Your task to perform on an android device: install app "Speedtest by Ookla" Image 0: 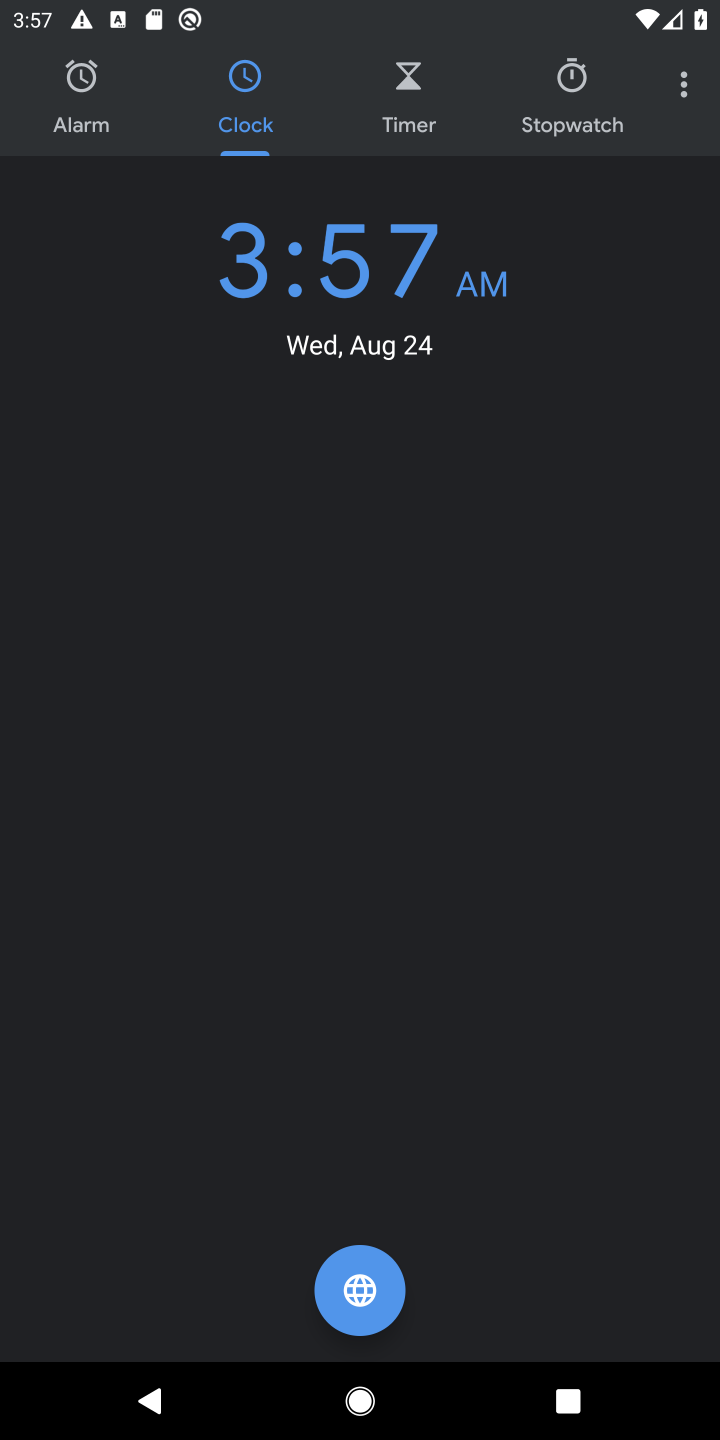
Step 0: press home button
Your task to perform on an android device: install app "Speedtest by Ookla" Image 1: 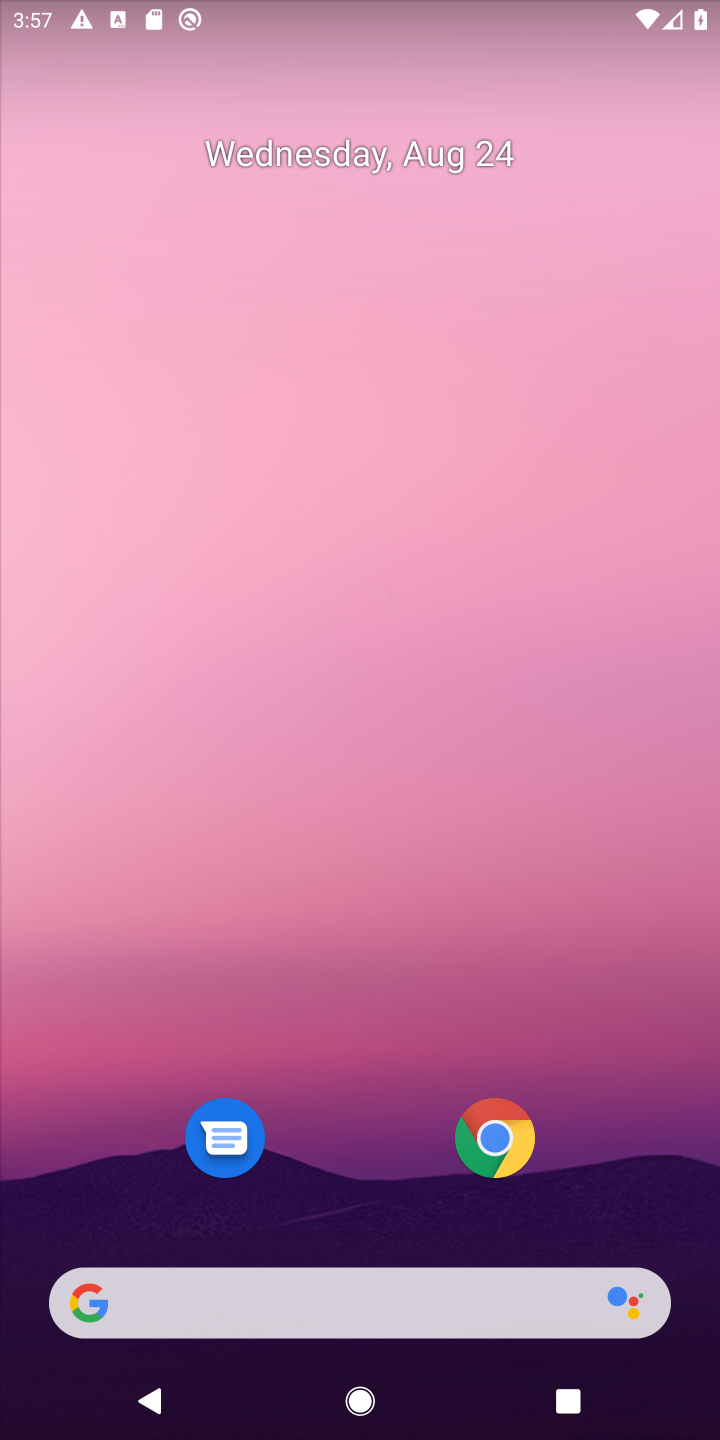
Step 1: drag from (359, 1252) to (349, 226)
Your task to perform on an android device: install app "Speedtest by Ookla" Image 2: 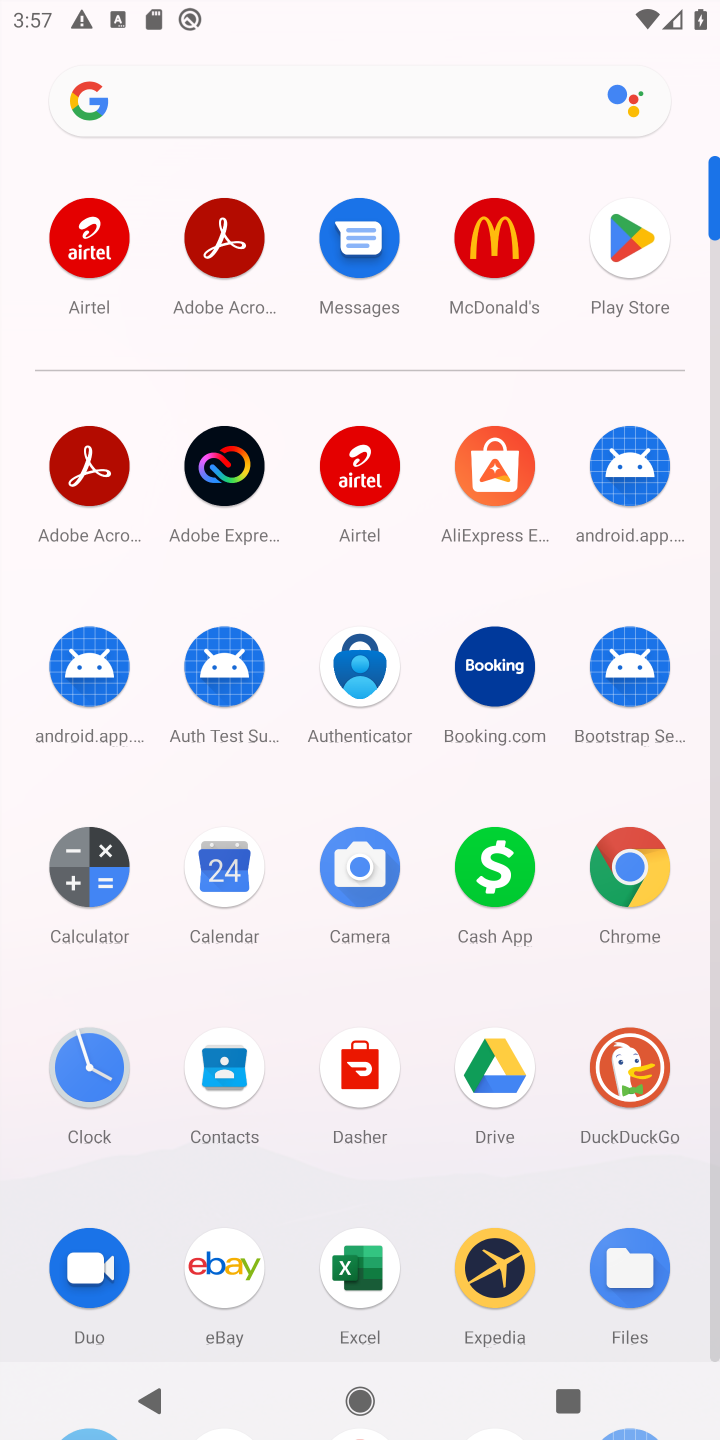
Step 2: drag from (410, 1004) to (410, 522)
Your task to perform on an android device: install app "Speedtest by Ookla" Image 3: 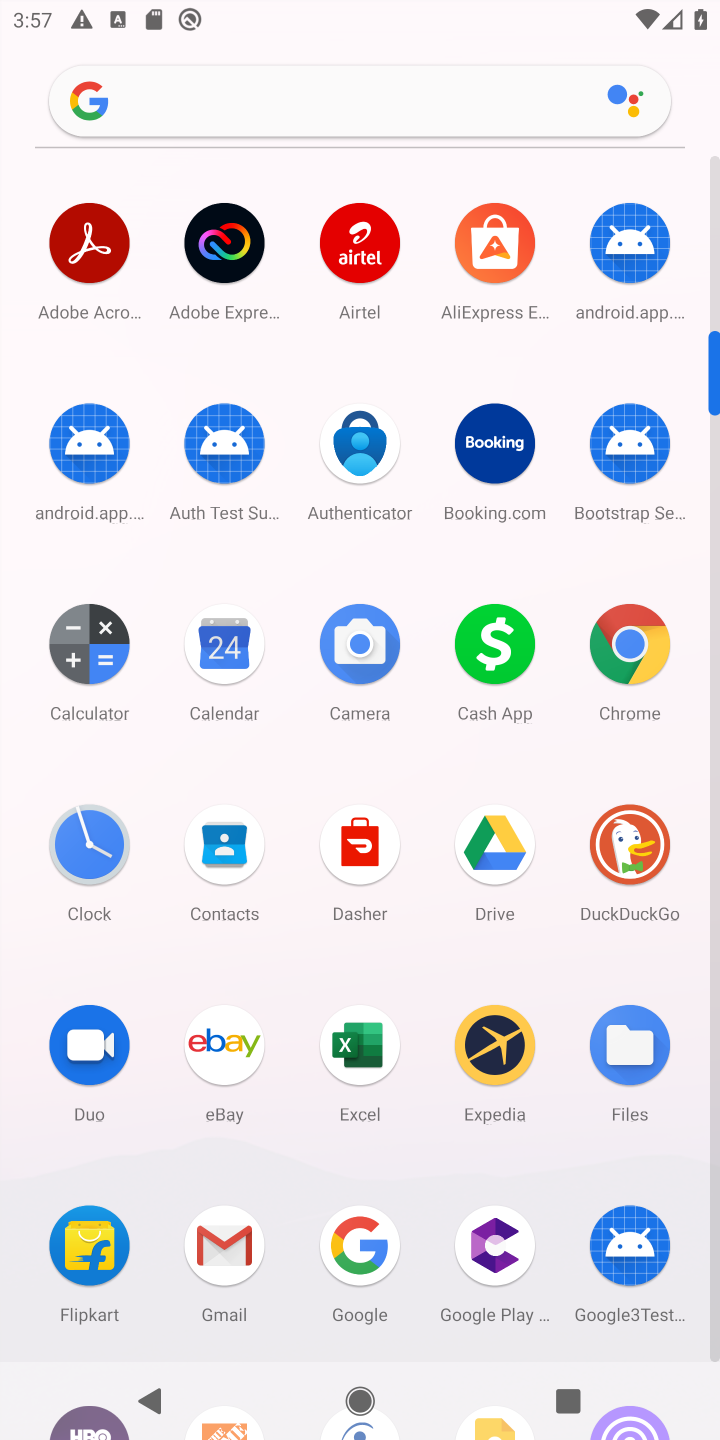
Step 3: drag from (434, 1152) to (460, 238)
Your task to perform on an android device: install app "Speedtest by Ookla" Image 4: 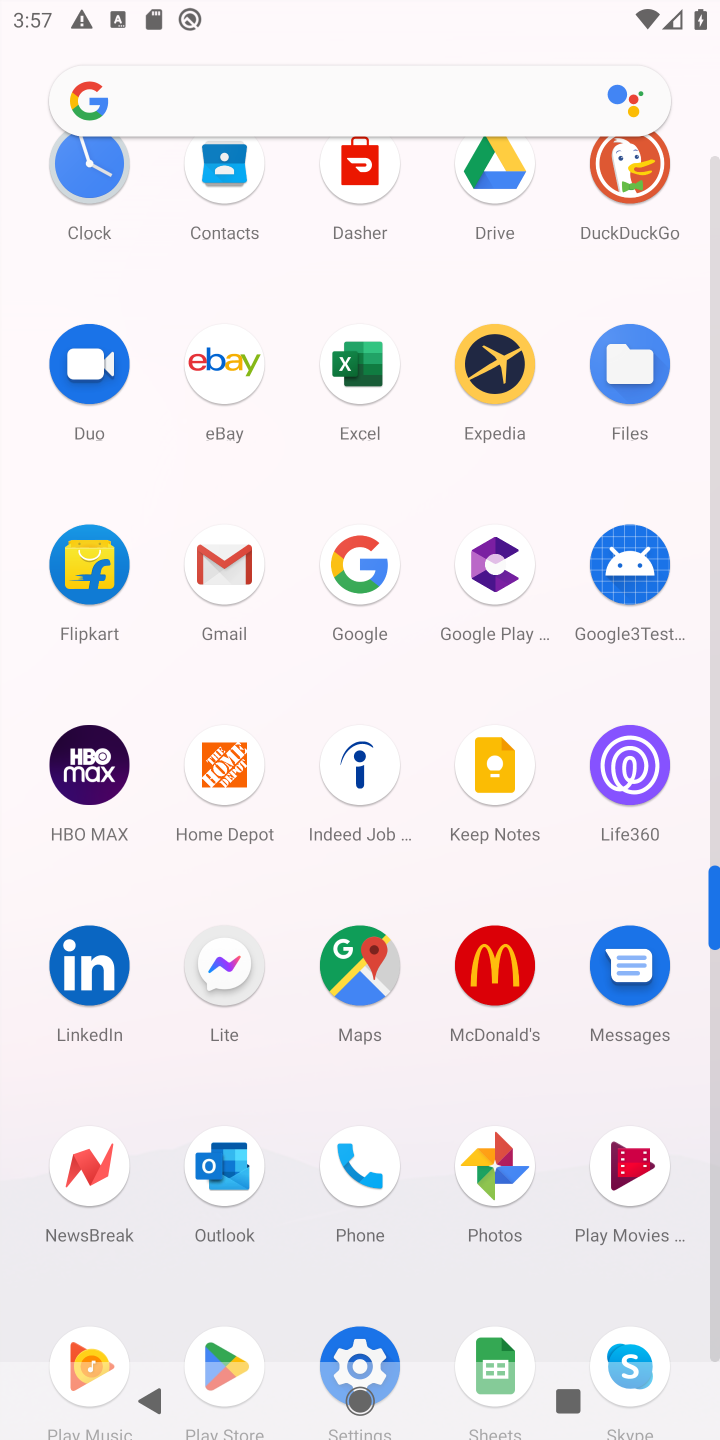
Step 4: drag from (295, 1227) to (363, 361)
Your task to perform on an android device: install app "Speedtest by Ookla" Image 5: 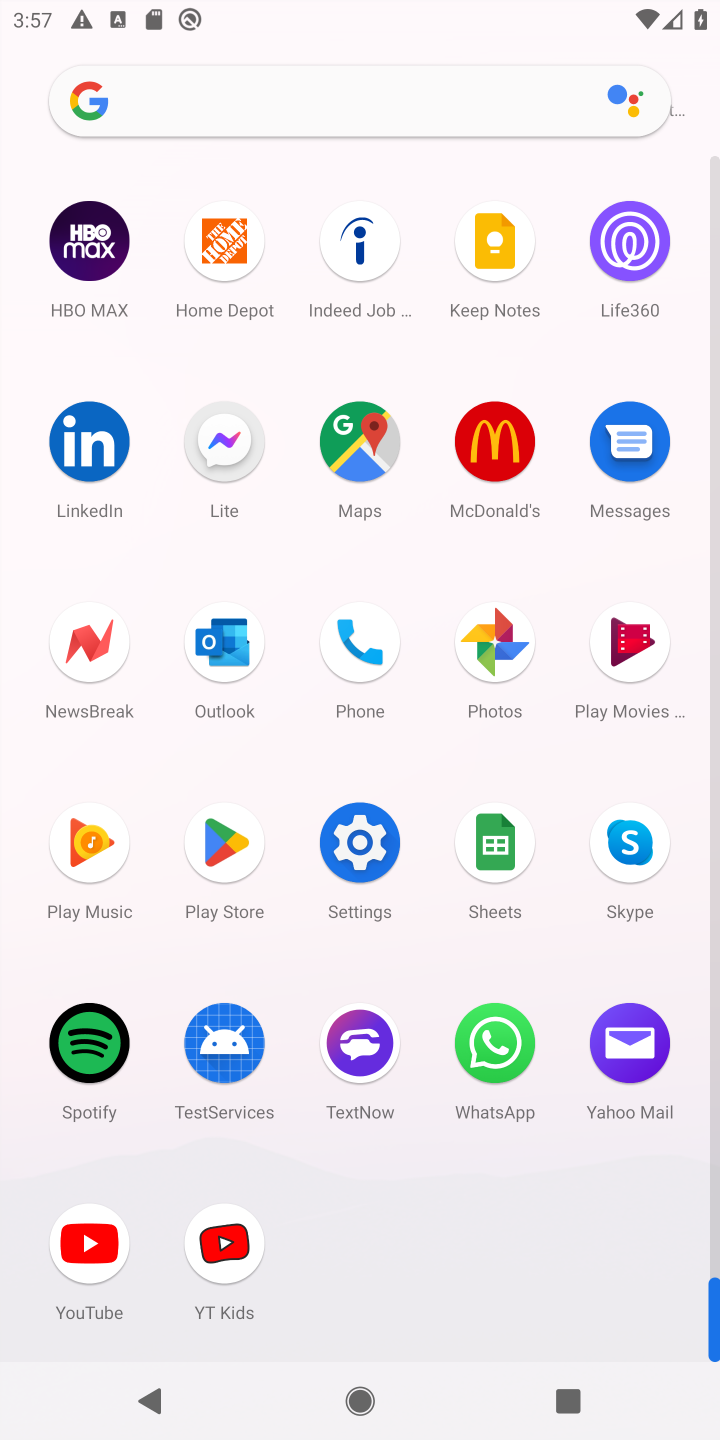
Step 5: click (225, 840)
Your task to perform on an android device: install app "Speedtest by Ookla" Image 6: 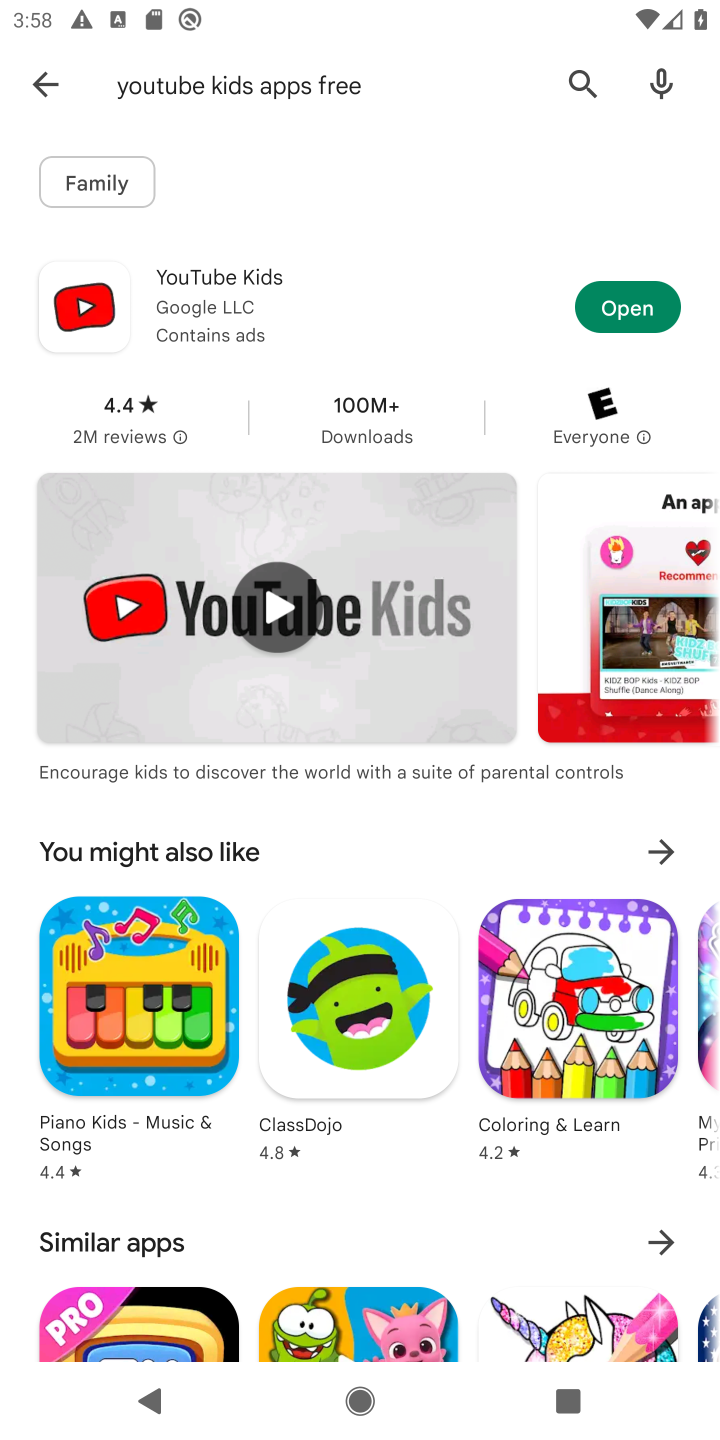
Step 6: click (578, 84)
Your task to perform on an android device: install app "Speedtest by Ookla" Image 7: 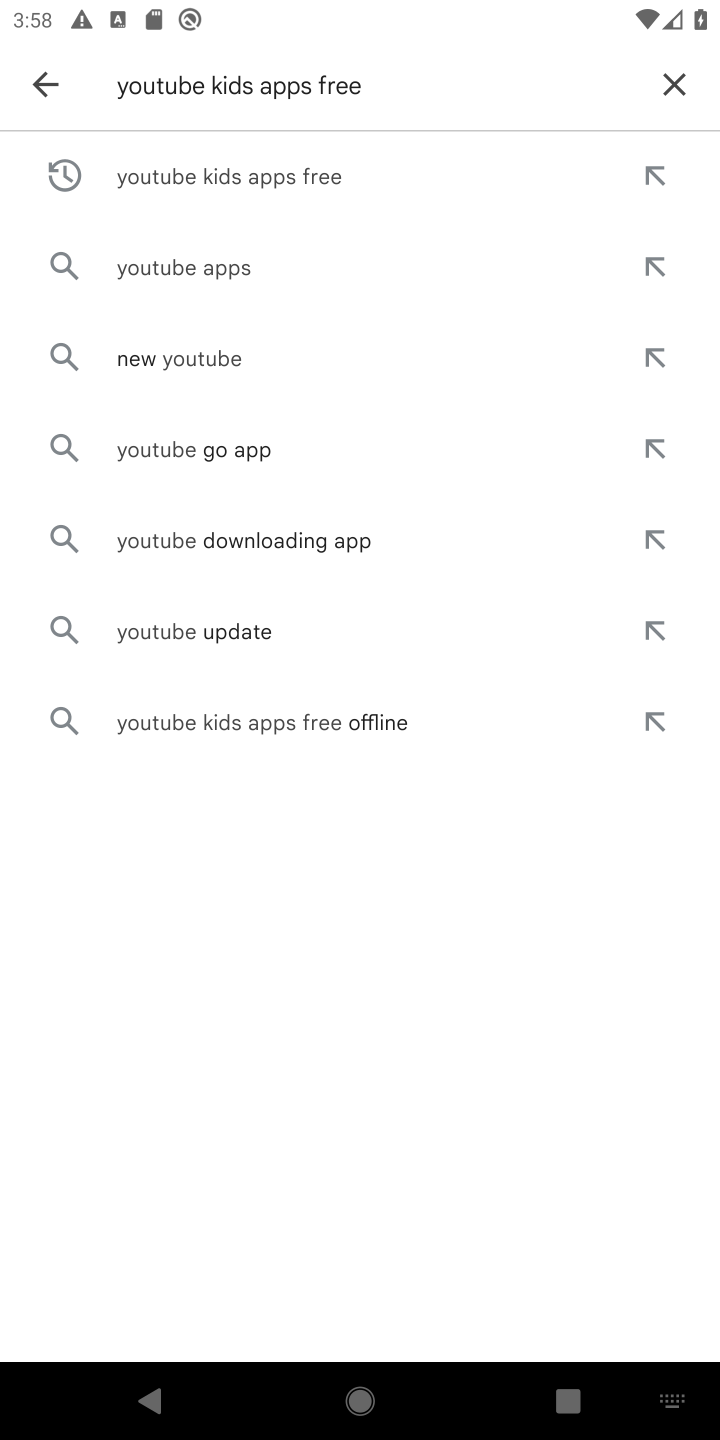
Step 7: click (681, 84)
Your task to perform on an android device: install app "Speedtest by Ookla" Image 8: 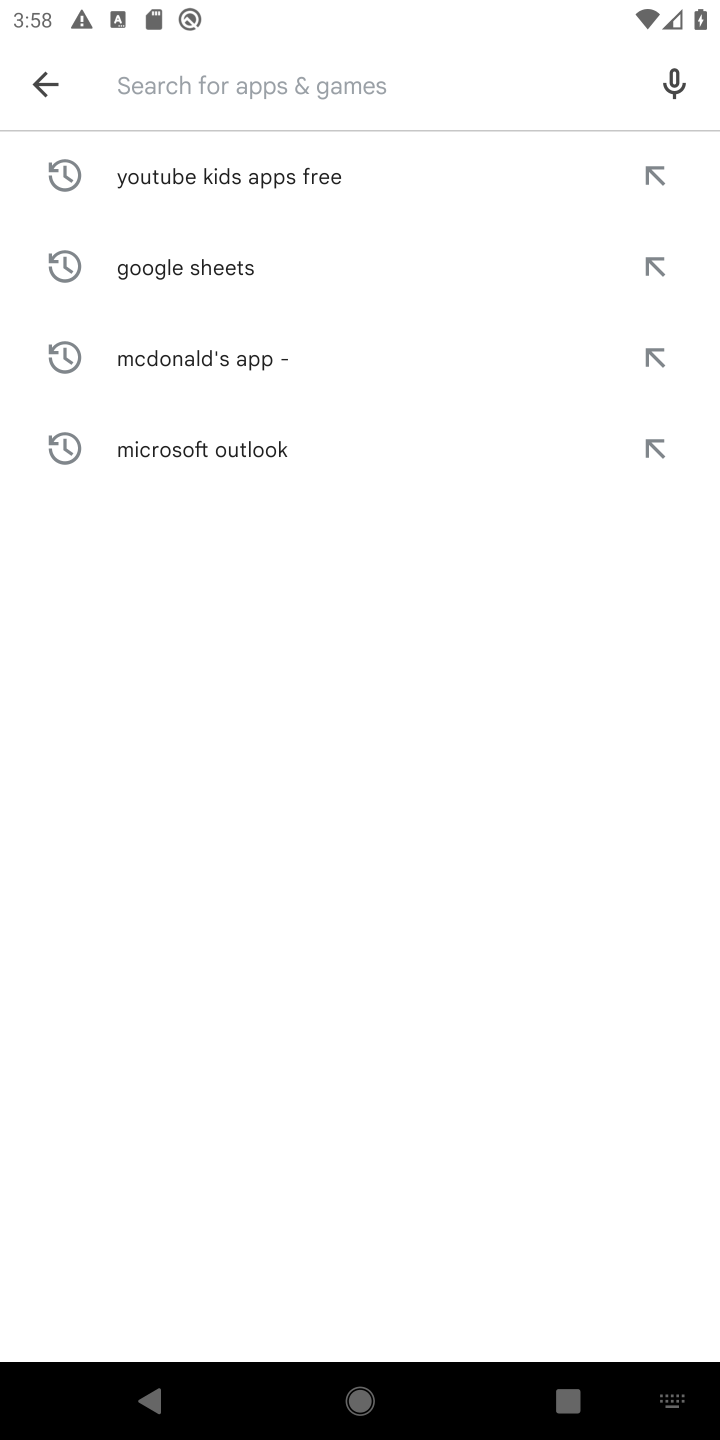
Step 8: type "Speedtest by Ookla"
Your task to perform on an android device: install app "Speedtest by Ookla" Image 9: 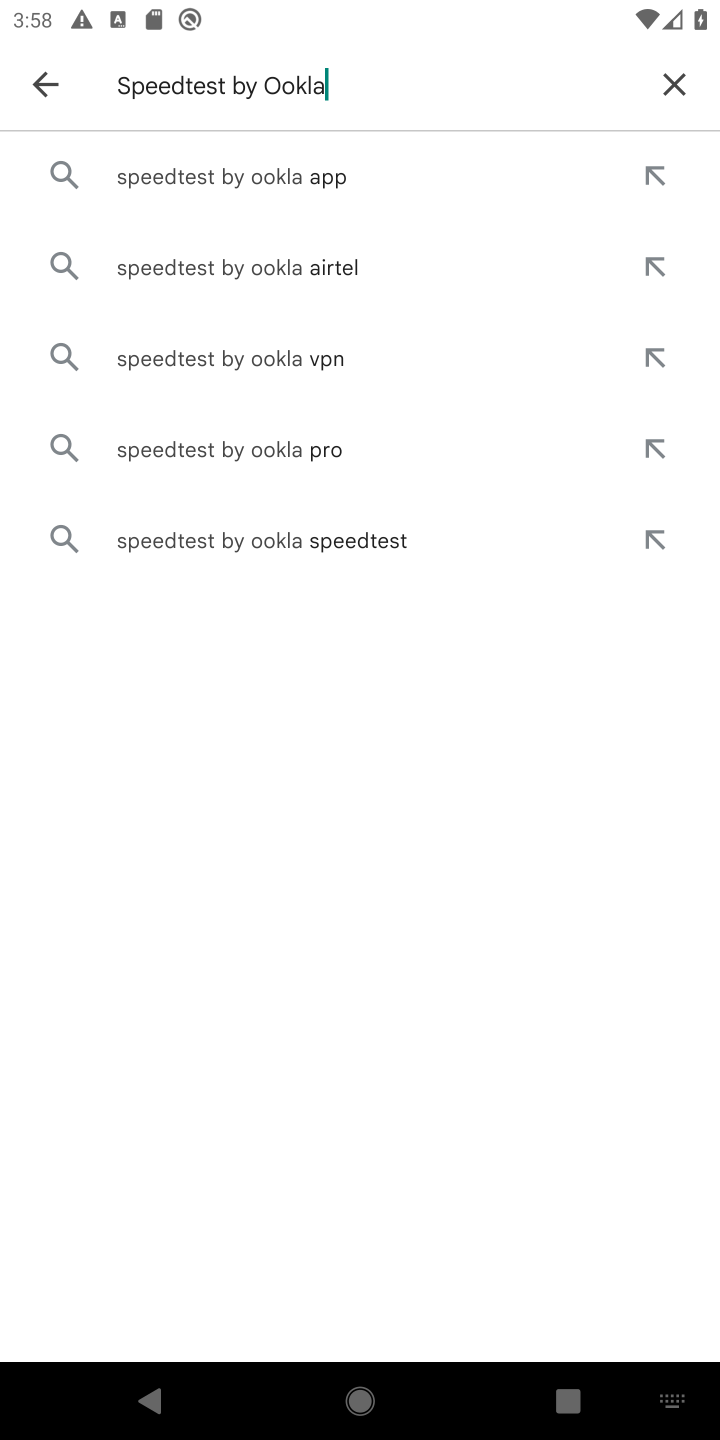
Step 9: click (279, 171)
Your task to perform on an android device: install app "Speedtest by Ookla" Image 10: 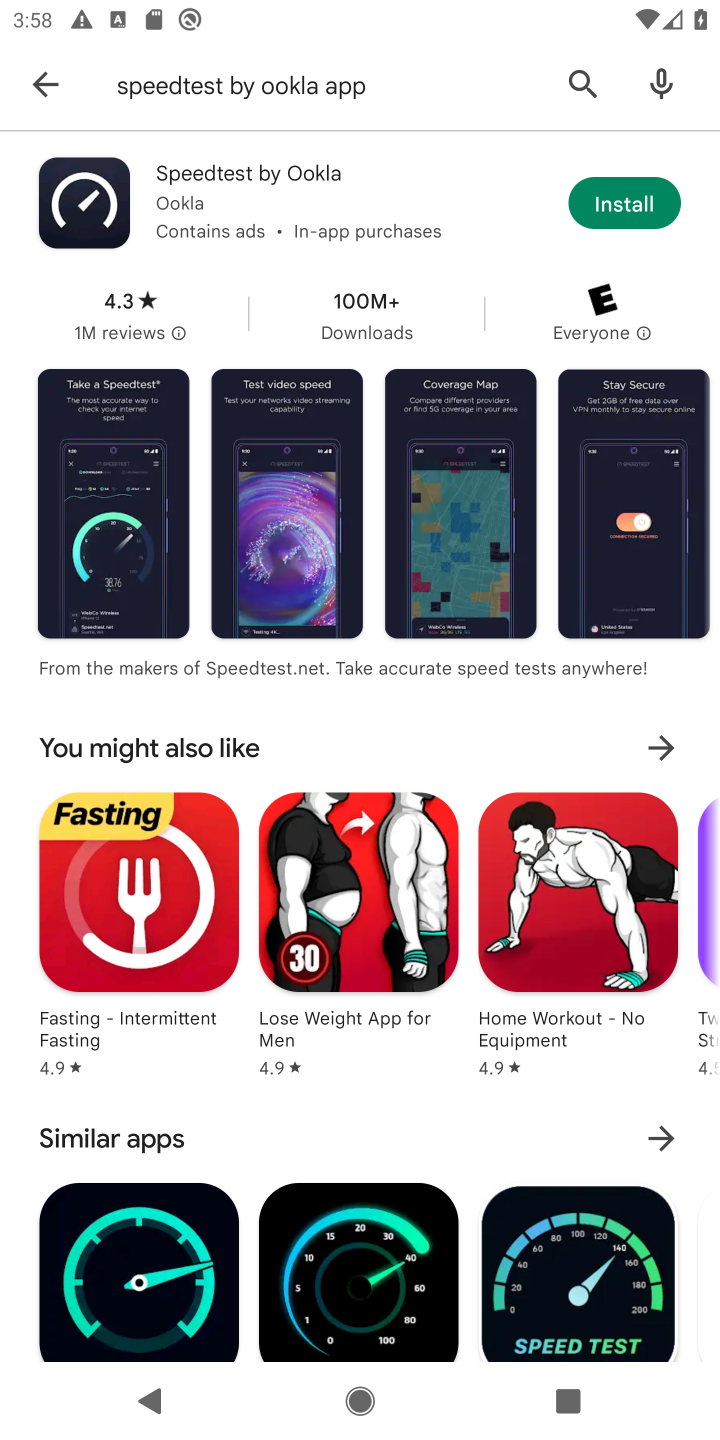
Step 10: click (623, 198)
Your task to perform on an android device: install app "Speedtest by Ookla" Image 11: 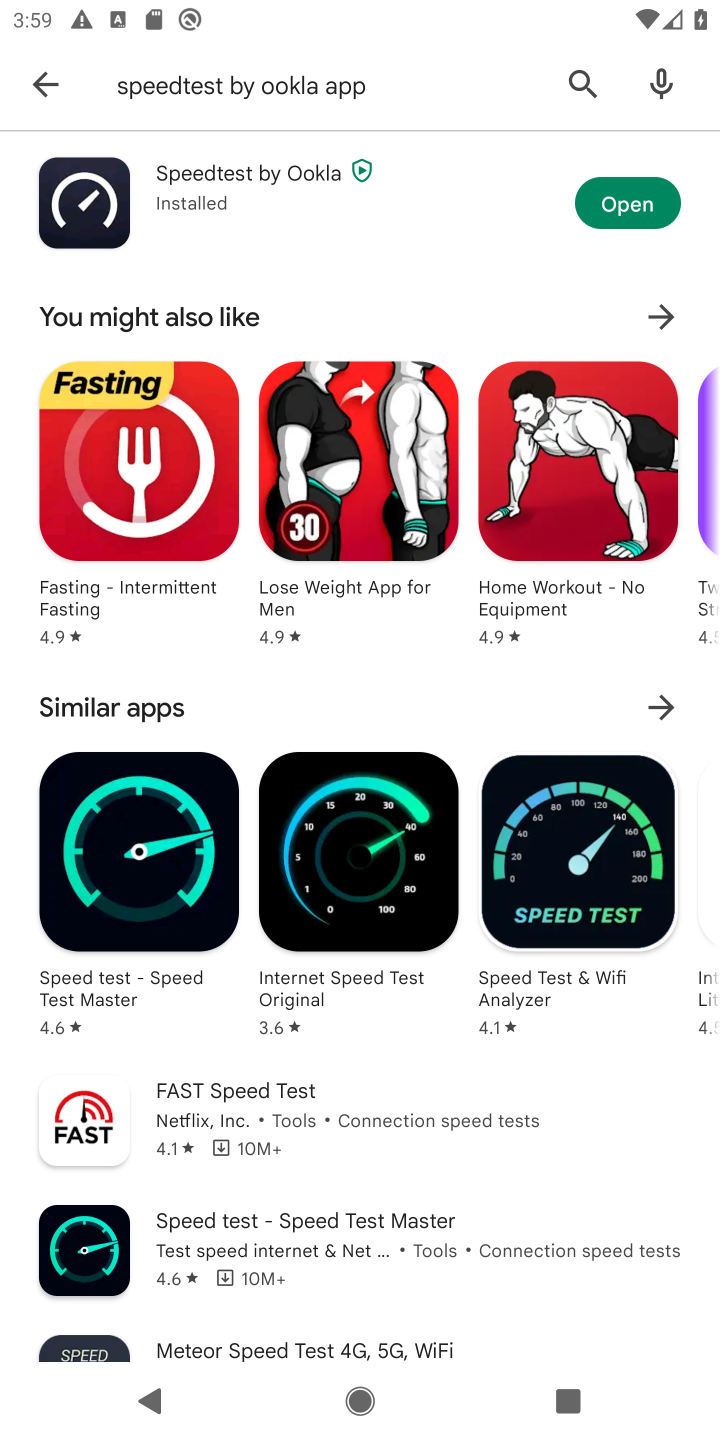
Step 11: task complete